Your task to perform on an android device: Go to Google maps Image 0: 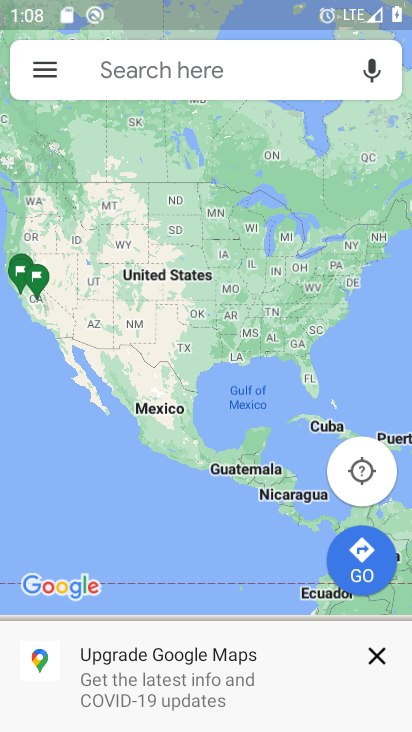
Step 0: press home button
Your task to perform on an android device: Go to Google maps Image 1: 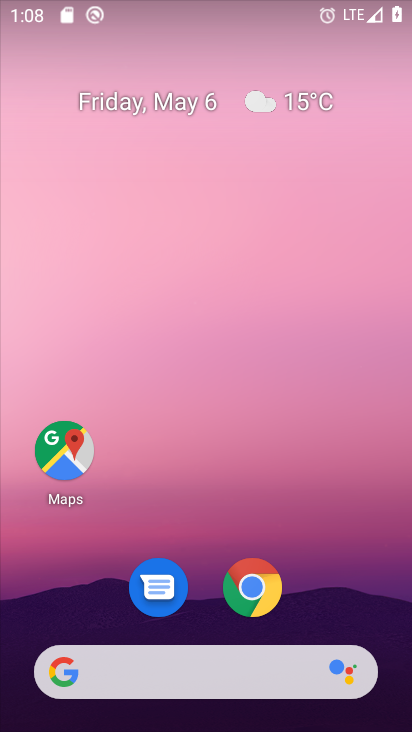
Step 1: click (58, 457)
Your task to perform on an android device: Go to Google maps Image 2: 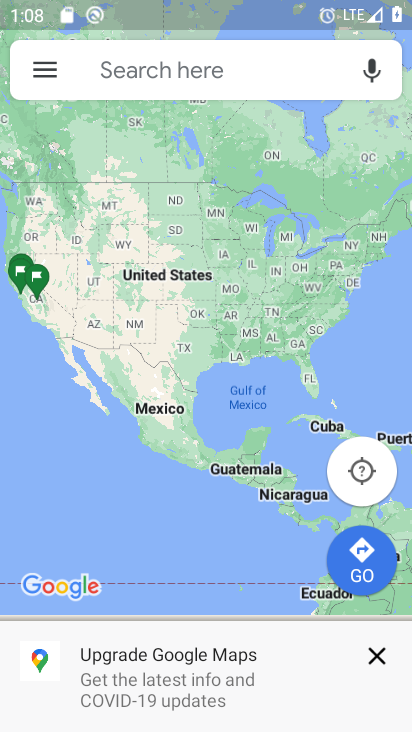
Step 2: task complete